Your task to perform on an android device: Go to notification settings Image 0: 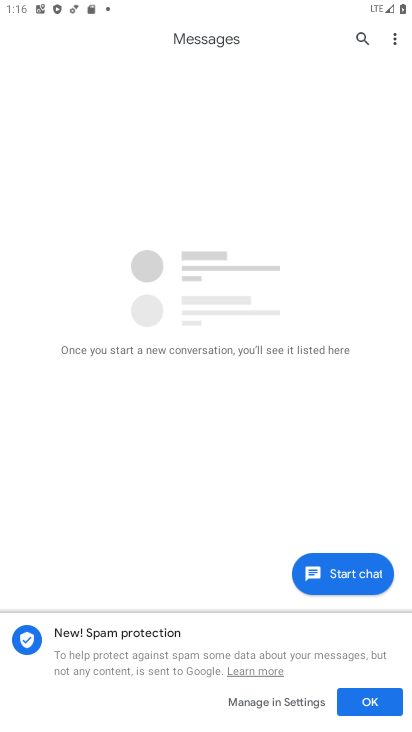
Step 0: press home button
Your task to perform on an android device: Go to notification settings Image 1: 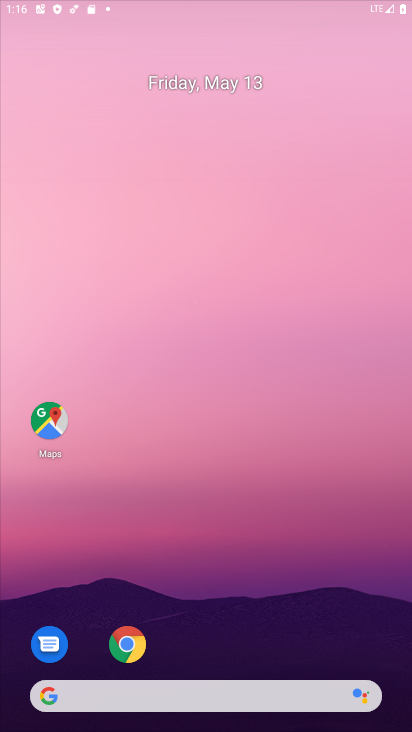
Step 1: drag from (336, 594) to (355, 91)
Your task to perform on an android device: Go to notification settings Image 2: 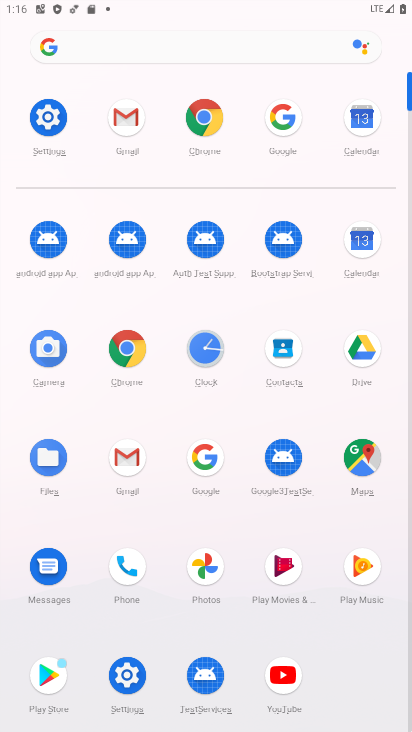
Step 2: drag from (356, 90) to (392, 137)
Your task to perform on an android device: Go to notification settings Image 3: 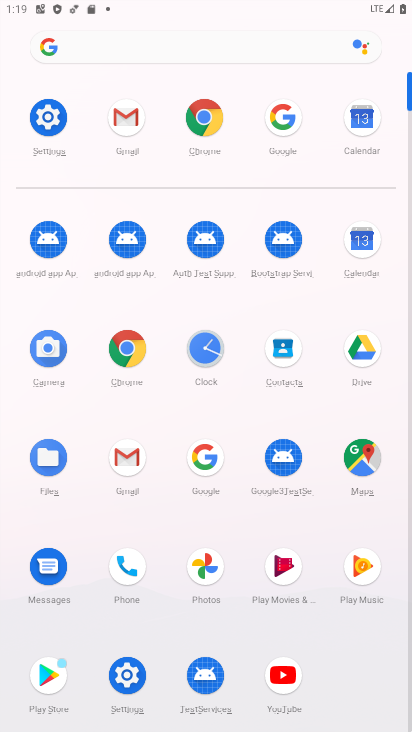
Step 3: click (131, 671)
Your task to perform on an android device: Go to notification settings Image 4: 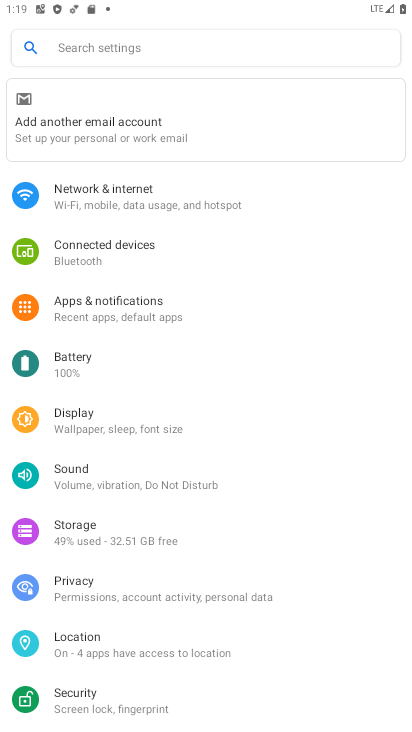
Step 4: click (171, 313)
Your task to perform on an android device: Go to notification settings Image 5: 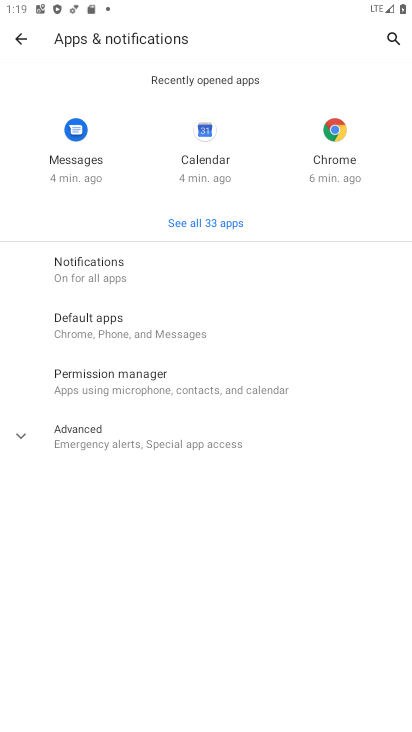
Step 5: click (197, 267)
Your task to perform on an android device: Go to notification settings Image 6: 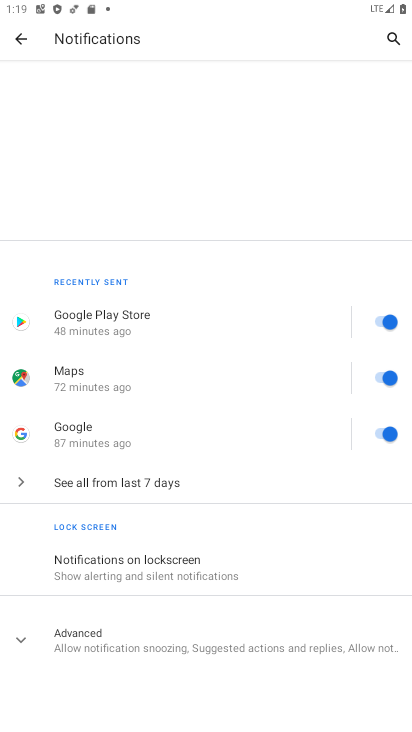
Step 6: task complete